Your task to perform on an android device: Search for Mexican restaurants on Maps Image 0: 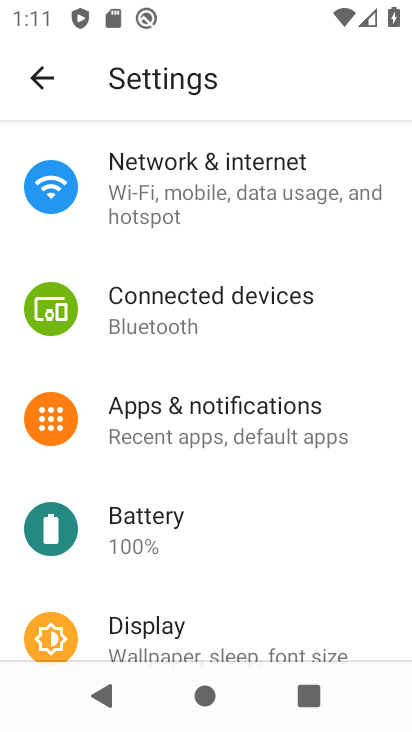
Step 0: press home button
Your task to perform on an android device: Search for Mexican restaurants on Maps Image 1: 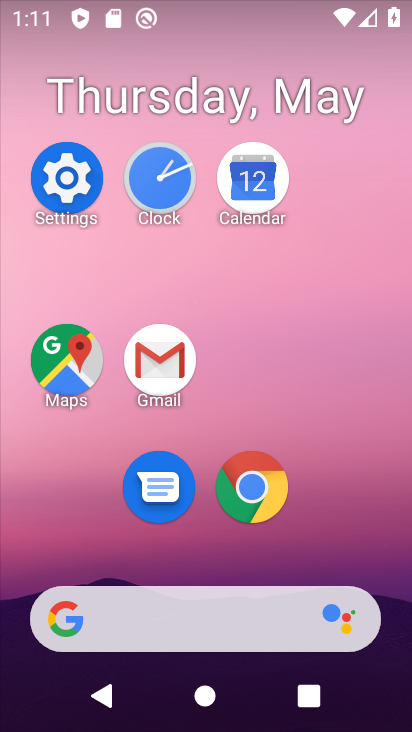
Step 1: click (64, 341)
Your task to perform on an android device: Search for Mexican restaurants on Maps Image 2: 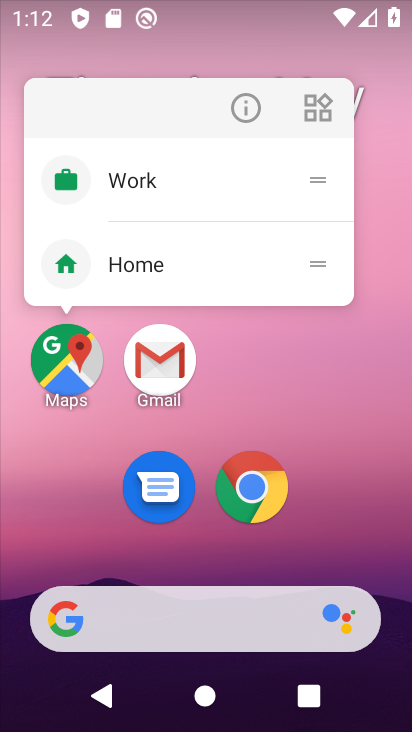
Step 2: click (56, 357)
Your task to perform on an android device: Search for Mexican restaurants on Maps Image 3: 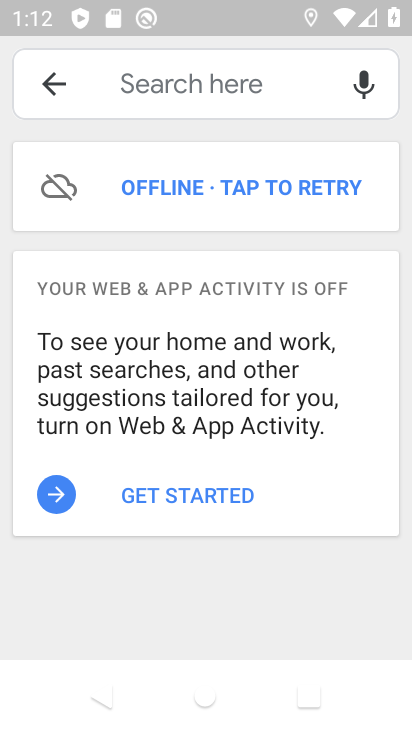
Step 3: click (201, 94)
Your task to perform on an android device: Search for Mexican restaurants on Maps Image 4: 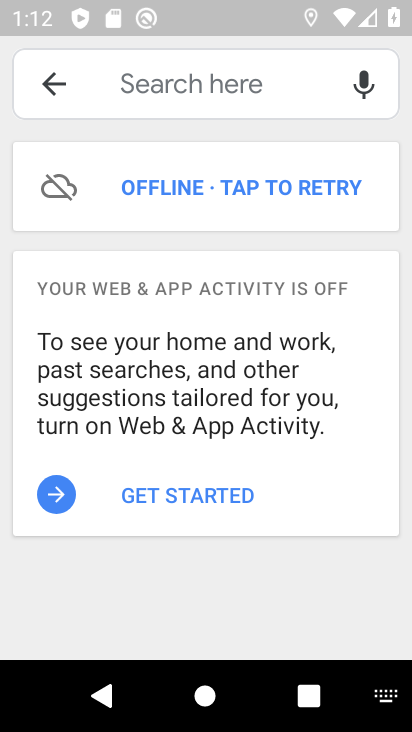
Step 4: type "mexican restaurants"
Your task to perform on an android device: Search for Mexican restaurants on Maps Image 5: 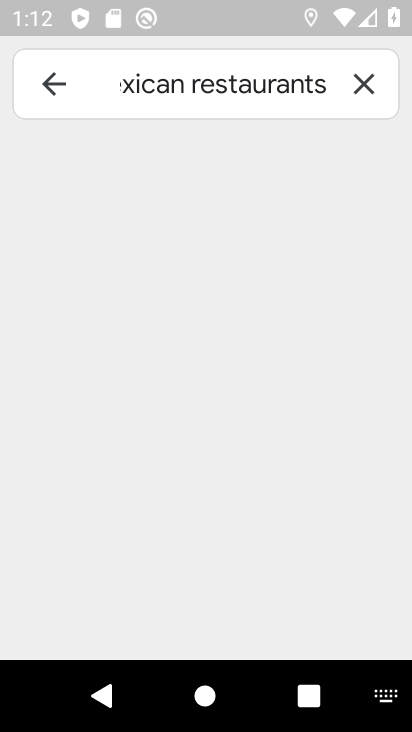
Step 5: task complete